Your task to perform on an android device: open a bookmark in the chrome app Image 0: 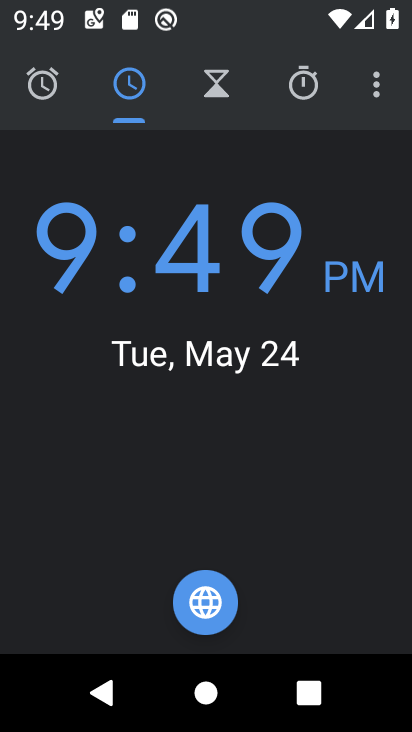
Step 0: press home button
Your task to perform on an android device: open a bookmark in the chrome app Image 1: 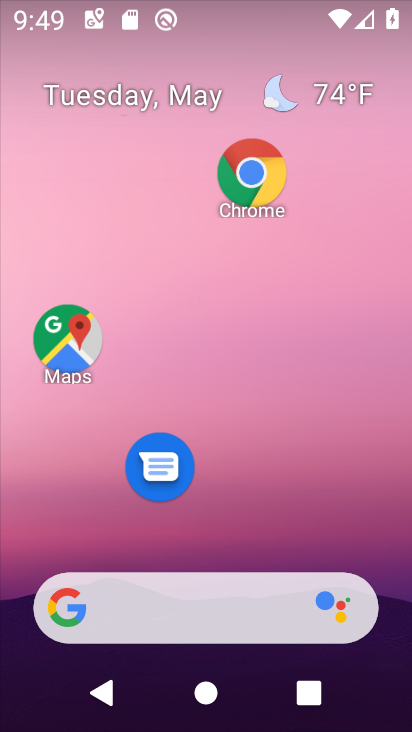
Step 1: drag from (330, 514) to (348, 138)
Your task to perform on an android device: open a bookmark in the chrome app Image 2: 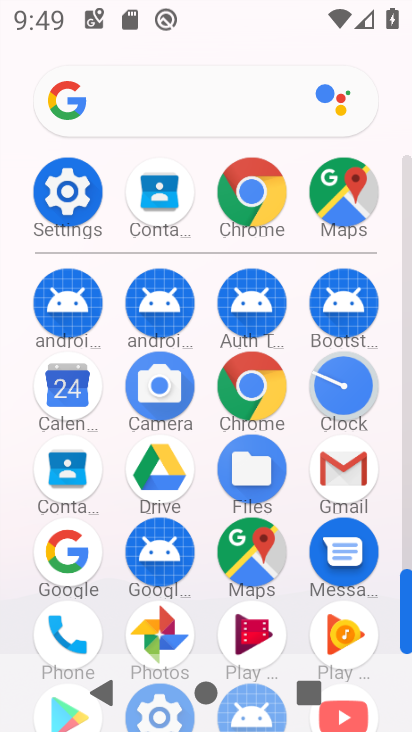
Step 2: click (245, 402)
Your task to perform on an android device: open a bookmark in the chrome app Image 3: 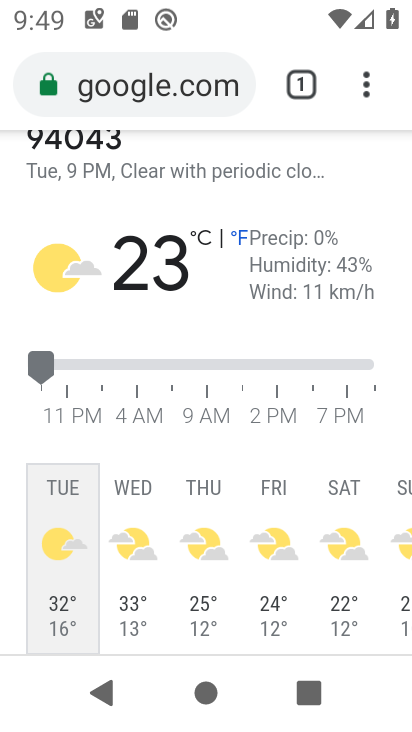
Step 3: task complete